Your task to perform on an android device: set the stopwatch Image 0: 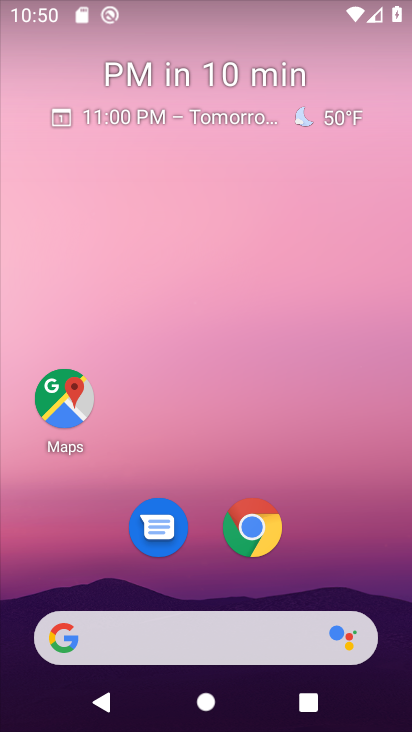
Step 0: drag from (351, 544) to (310, 165)
Your task to perform on an android device: set the stopwatch Image 1: 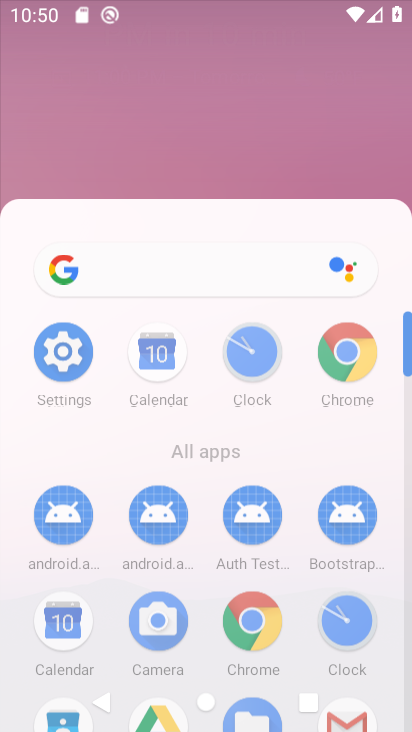
Step 1: click (310, 165)
Your task to perform on an android device: set the stopwatch Image 2: 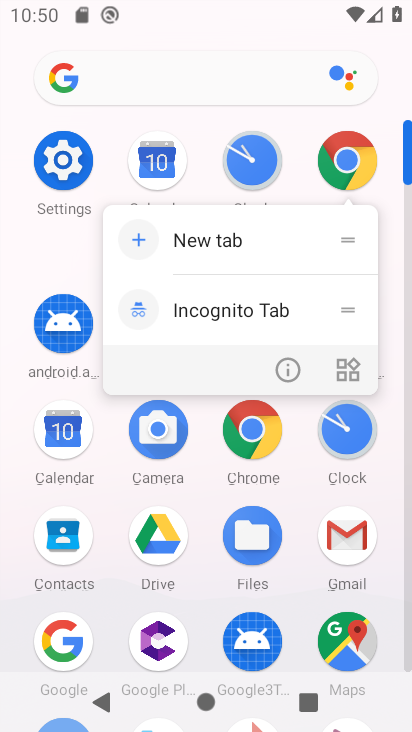
Step 2: drag from (68, 255) to (64, 190)
Your task to perform on an android device: set the stopwatch Image 3: 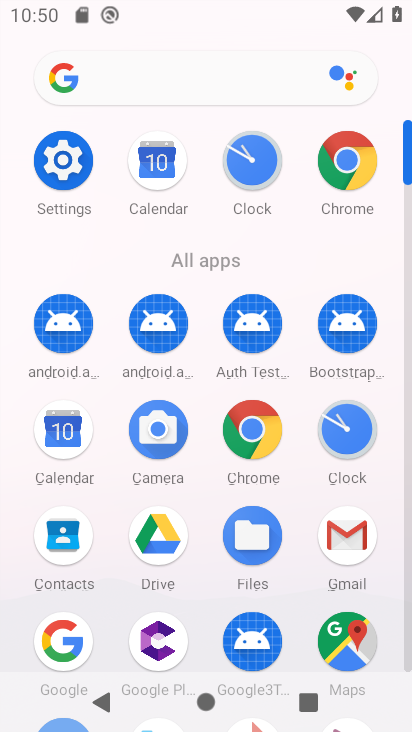
Step 3: click (267, 170)
Your task to perform on an android device: set the stopwatch Image 4: 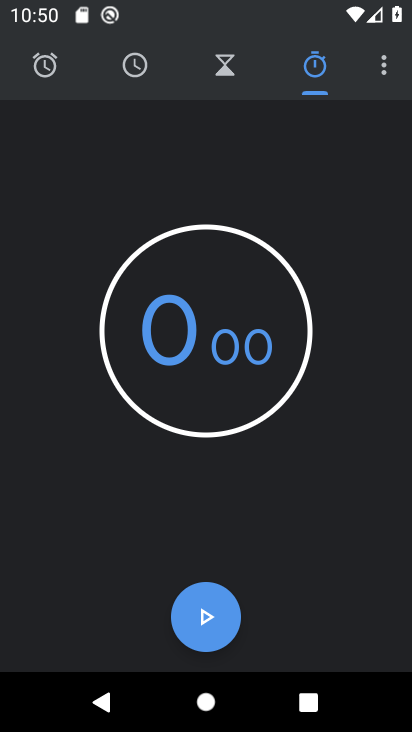
Step 4: task complete